Your task to perform on an android device: turn on javascript in the chrome app Image 0: 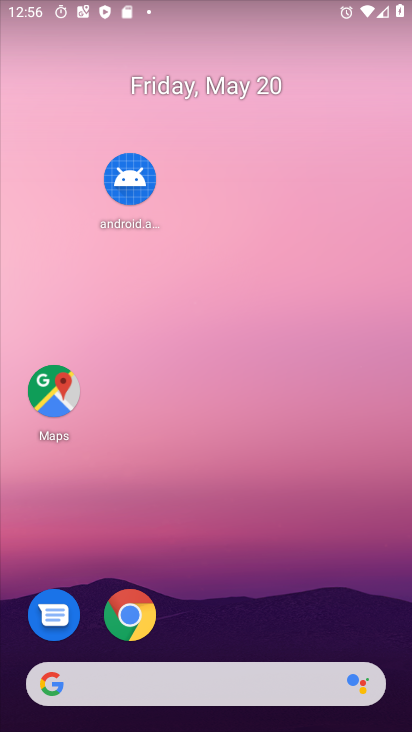
Step 0: click (148, 621)
Your task to perform on an android device: turn on javascript in the chrome app Image 1: 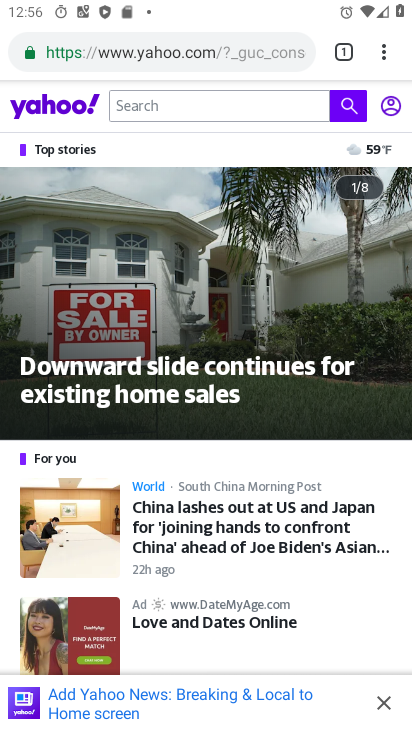
Step 1: click (383, 57)
Your task to perform on an android device: turn on javascript in the chrome app Image 2: 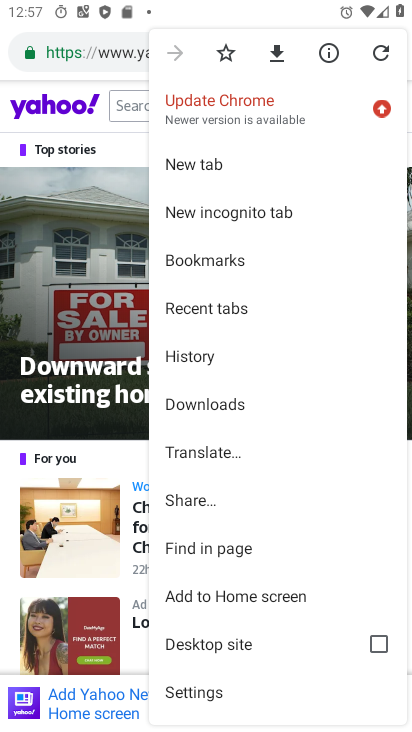
Step 2: click (259, 693)
Your task to perform on an android device: turn on javascript in the chrome app Image 3: 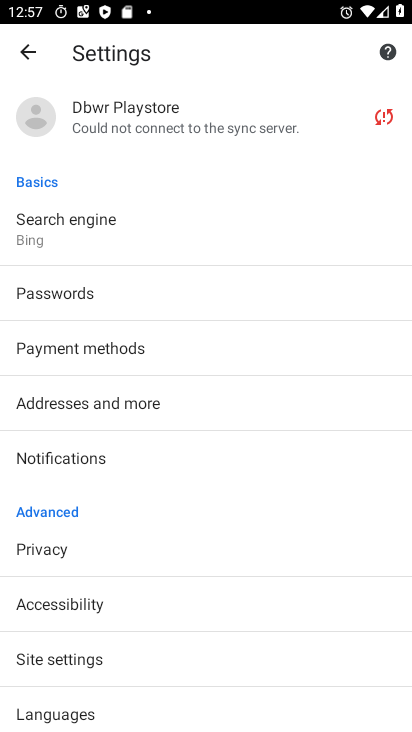
Step 3: click (101, 654)
Your task to perform on an android device: turn on javascript in the chrome app Image 4: 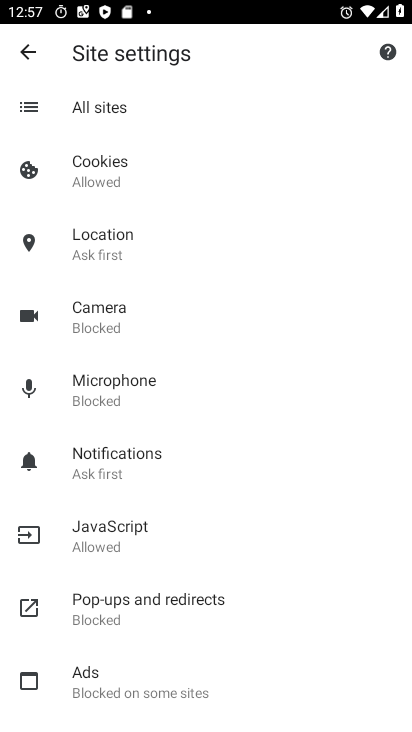
Step 4: click (167, 524)
Your task to perform on an android device: turn on javascript in the chrome app Image 5: 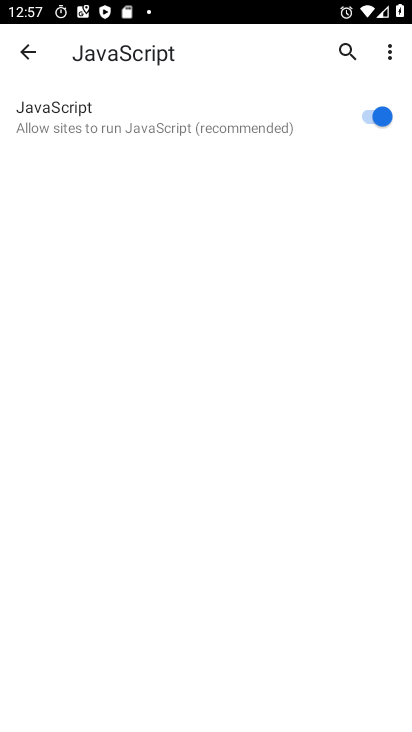
Step 5: task complete